Your task to perform on an android device: Open CNN.com Image 0: 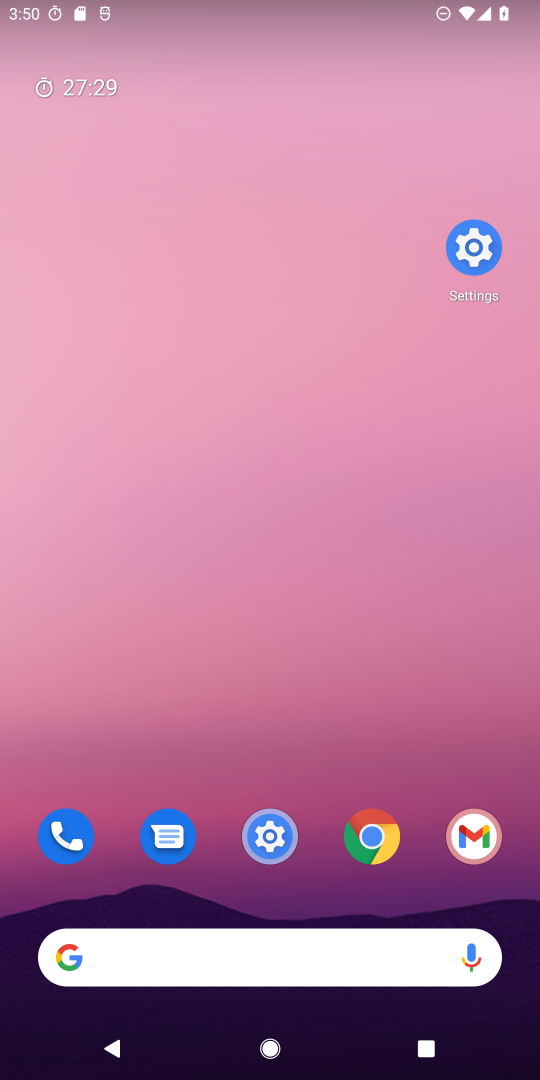
Step 0: click (362, 843)
Your task to perform on an android device: Open CNN.com Image 1: 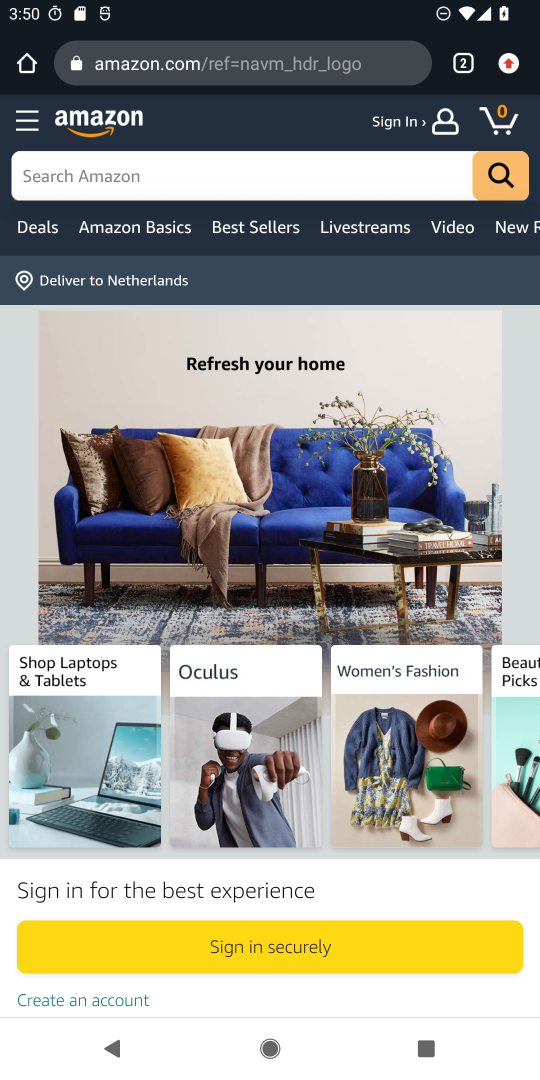
Step 1: click (194, 70)
Your task to perform on an android device: Open CNN.com Image 2: 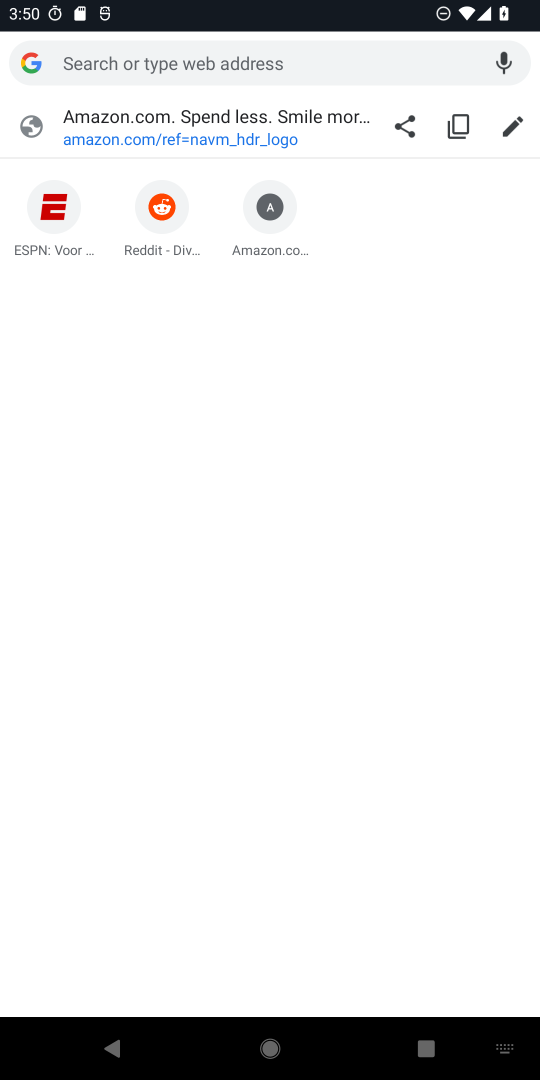
Step 2: click (213, 45)
Your task to perform on an android device: Open CNN.com Image 3: 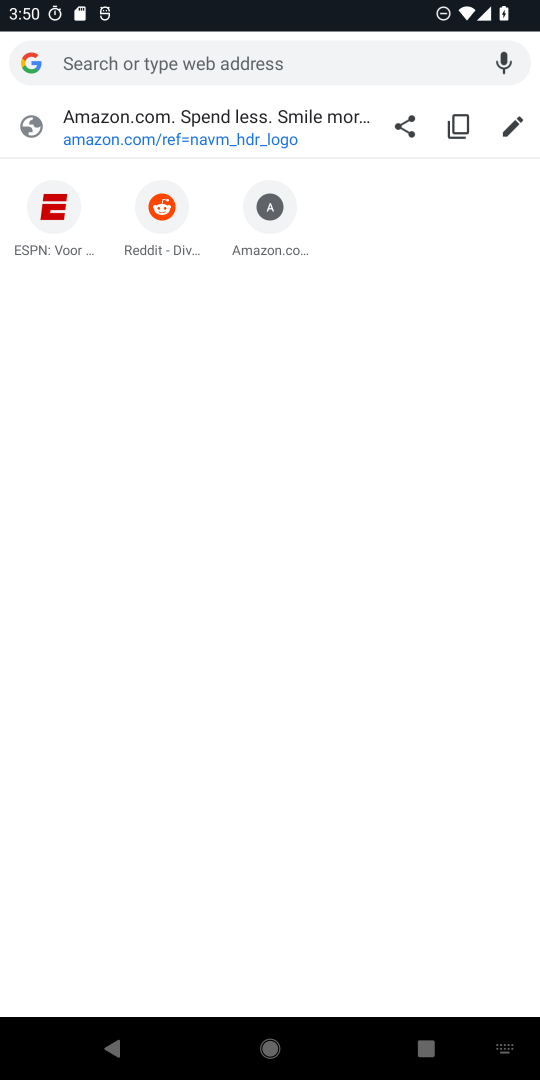
Step 3: type "CNN.com"
Your task to perform on an android device: Open CNN.com Image 4: 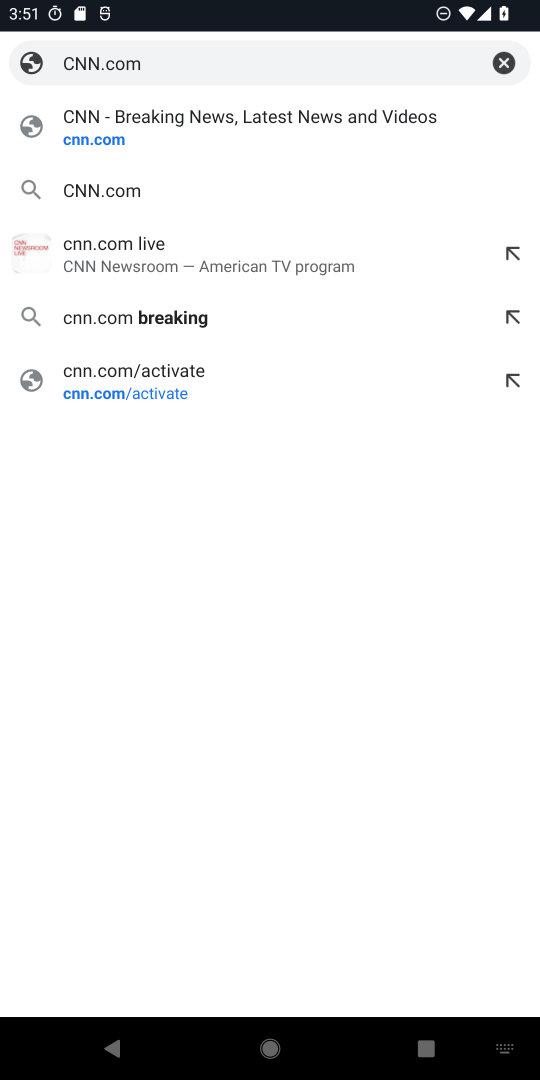
Step 4: click (131, 126)
Your task to perform on an android device: Open CNN.com Image 5: 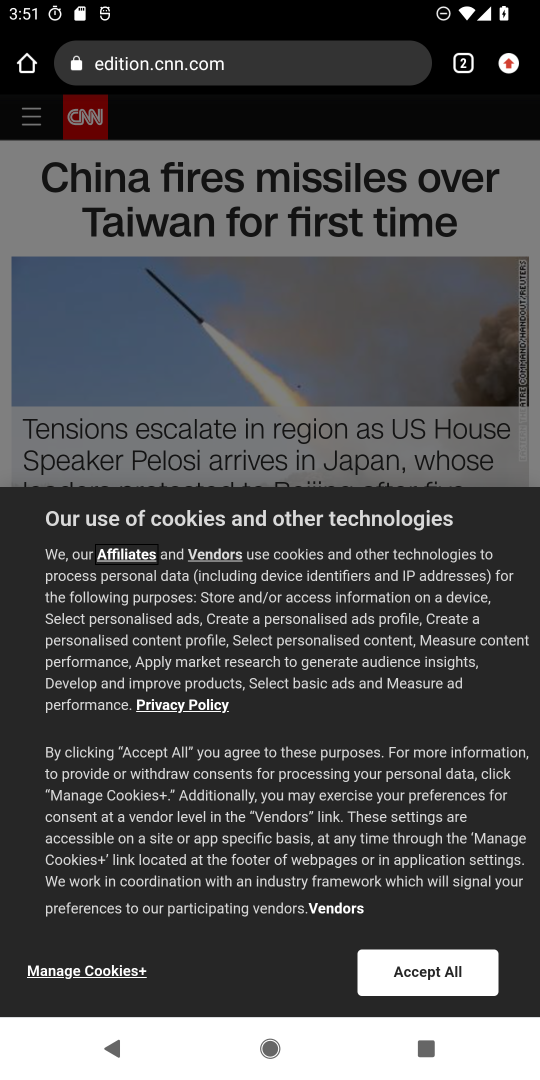
Step 5: task complete